Your task to perform on an android device: turn on wifi Image 0: 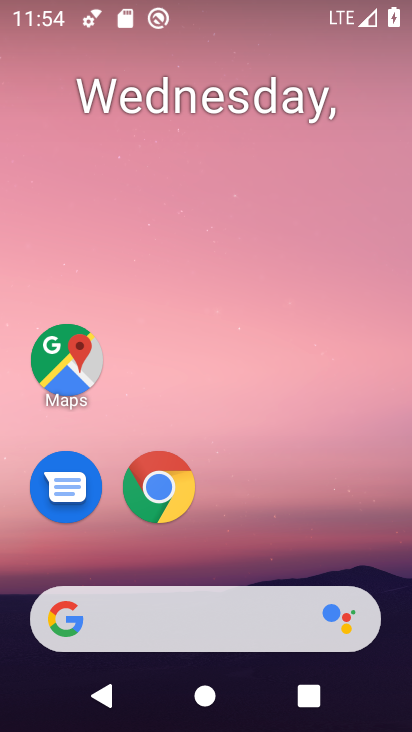
Step 0: drag from (323, 566) to (360, 82)
Your task to perform on an android device: turn on wifi Image 1: 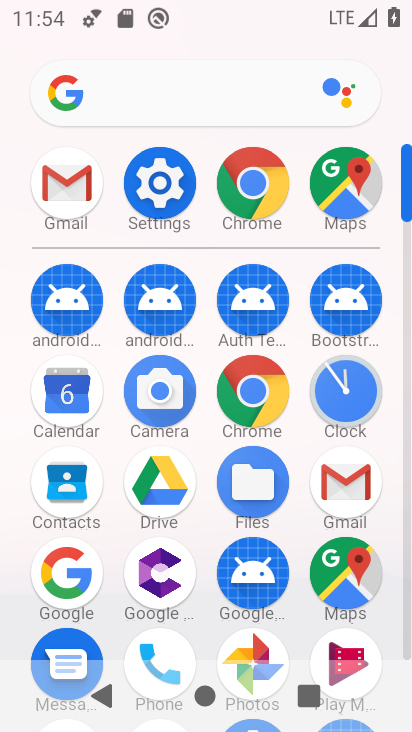
Step 1: click (169, 186)
Your task to perform on an android device: turn on wifi Image 2: 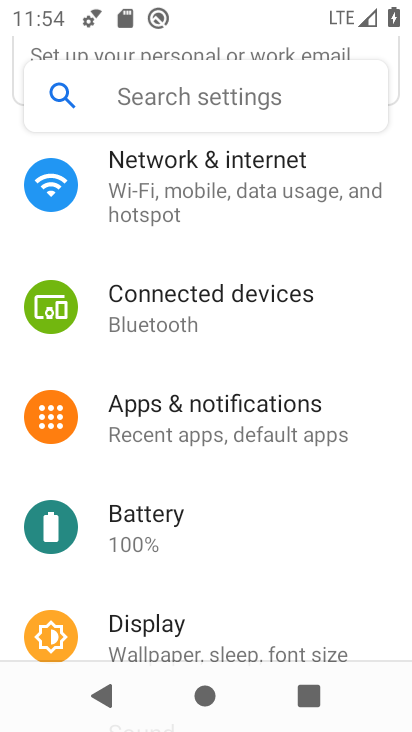
Step 2: drag from (374, 336) to (369, 401)
Your task to perform on an android device: turn on wifi Image 3: 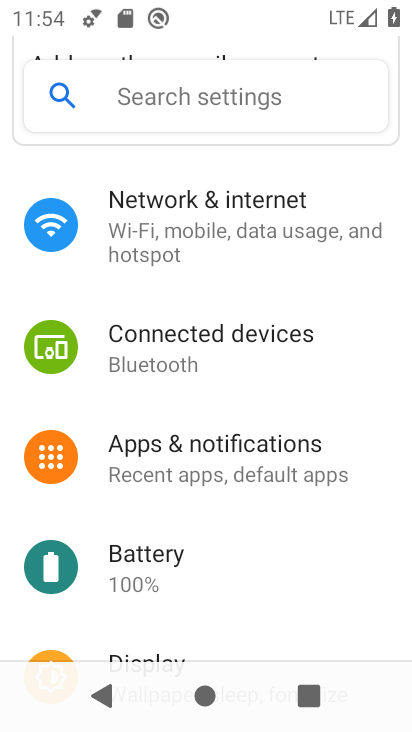
Step 3: click (288, 225)
Your task to perform on an android device: turn on wifi Image 4: 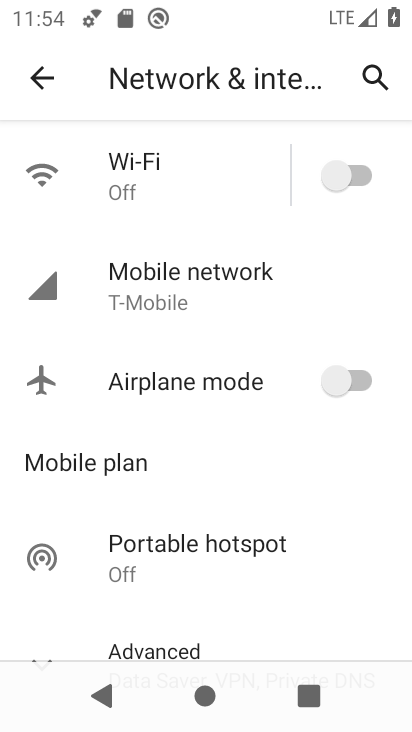
Step 4: click (351, 171)
Your task to perform on an android device: turn on wifi Image 5: 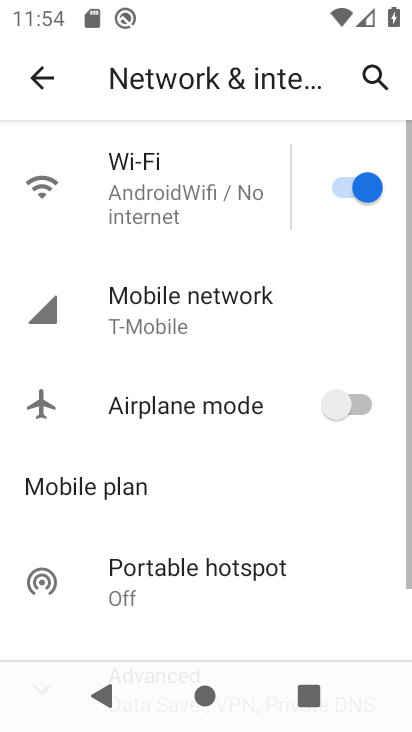
Step 5: task complete